Your task to perform on an android device: Open Google Chrome and click the shortcut for Amazon.com Image 0: 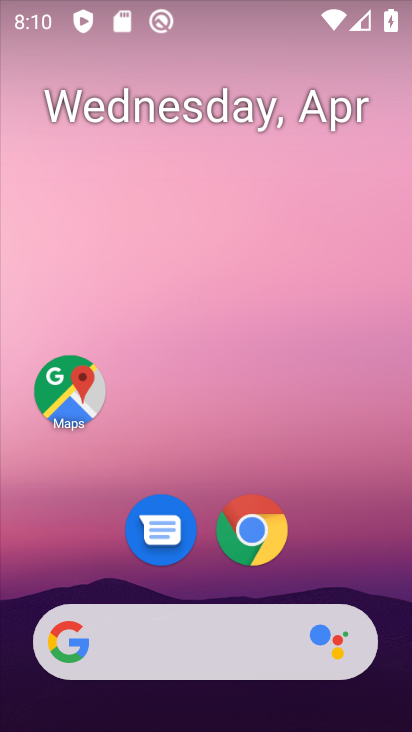
Step 0: click (240, 512)
Your task to perform on an android device: Open Google Chrome and click the shortcut for Amazon.com Image 1: 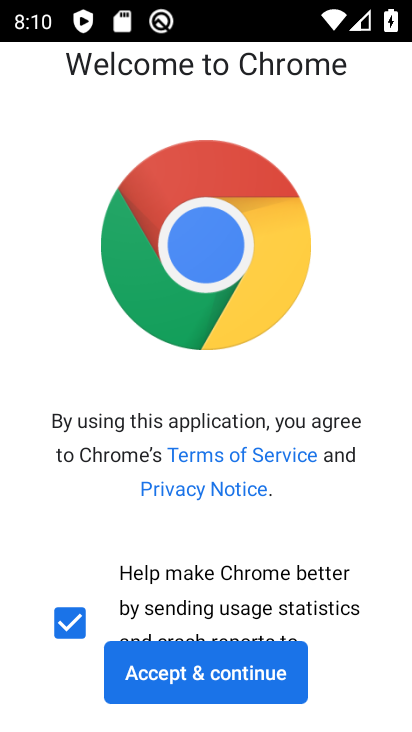
Step 1: click (201, 647)
Your task to perform on an android device: Open Google Chrome and click the shortcut for Amazon.com Image 2: 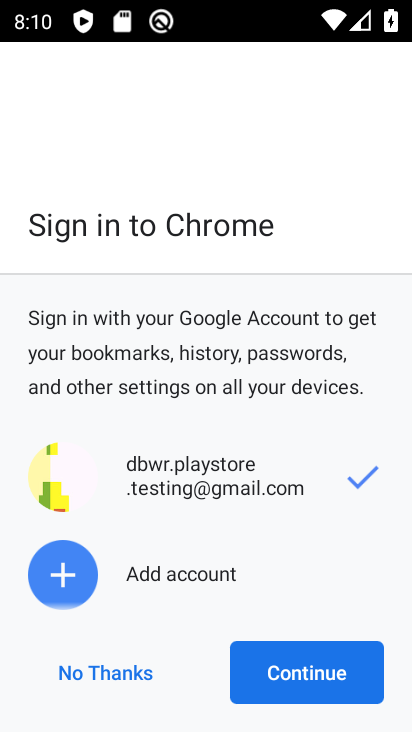
Step 2: click (271, 687)
Your task to perform on an android device: Open Google Chrome and click the shortcut for Amazon.com Image 3: 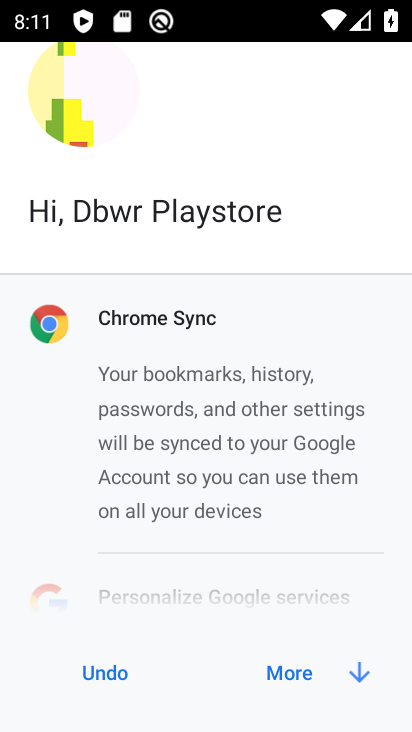
Step 3: click (297, 674)
Your task to perform on an android device: Open Google Chrome and click the shortcut for Amazon.com Image 4: 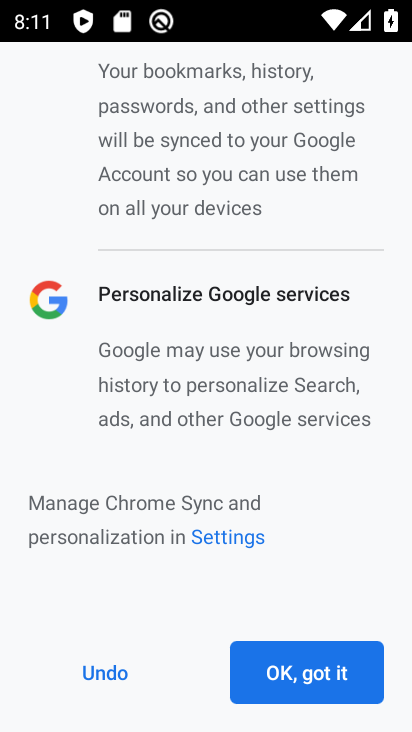
Step 4: click (297, 674)
Your task to perform on an android device: Open Google Chrome and click the shortcut for Amazon.com Image 5: 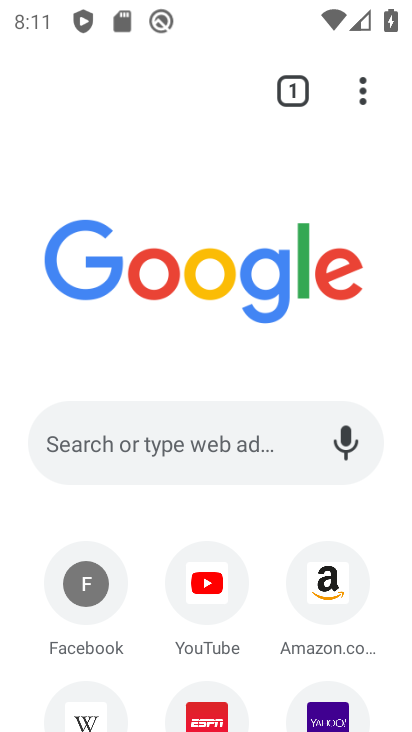
Step 5: click (355, 595)
Your task to perform on an android device: Open Google Chrome and click the shortcut for Amazon.com Image 6: 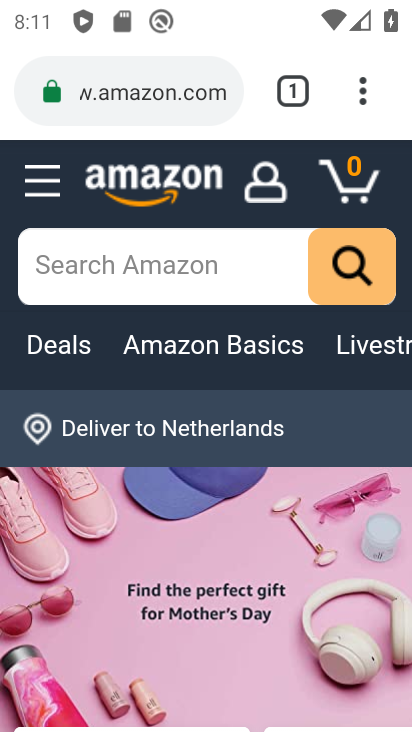
Step 6: task complete